Your task to perform on an android device: delete browsing data in the chrome app Image 0: 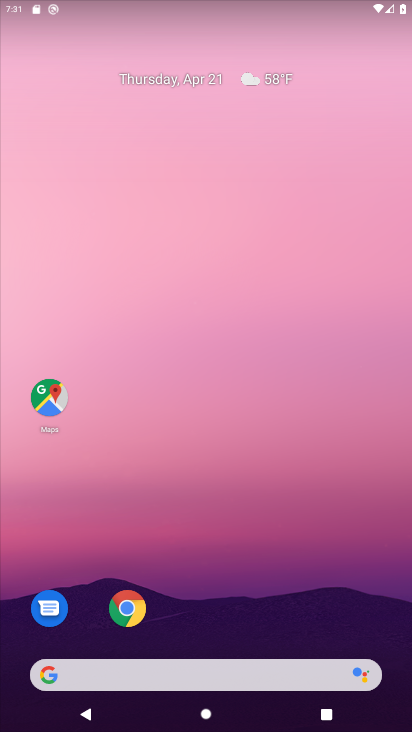
Step 0: click (131, 603)
Your task to perform on an android device: delete browsing data in the chrome app Image 1: 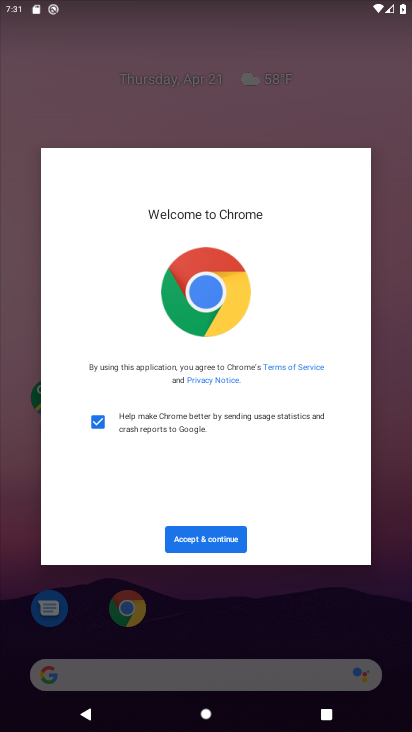
Step 1: click (225, 535)
Your task to perform on an android device: delete browsing data in the chrome app Image 2: 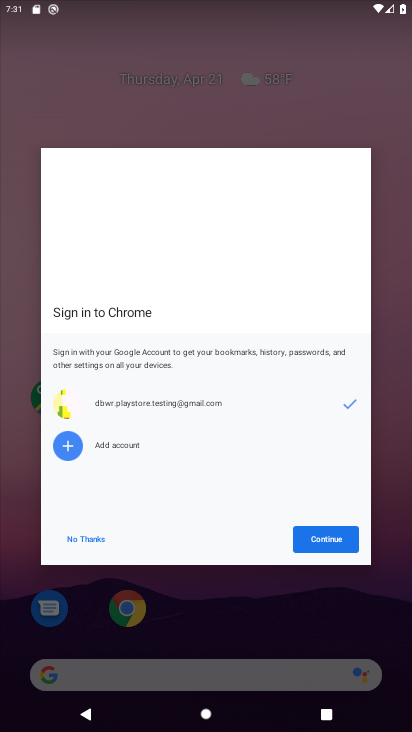
Step 2: click (323, 539)
Your task to perform on an android device: delete browsing data in the chrome app Image 3: 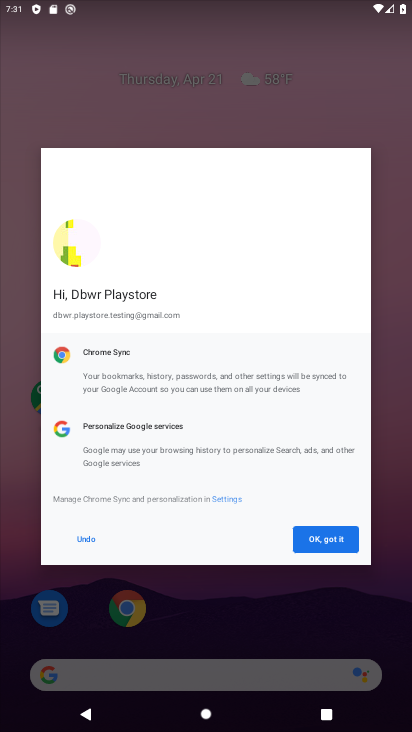
Step 3: click (325, 539)
Your task to perform on an android device: delete browsing data in the chrome app Image 4: 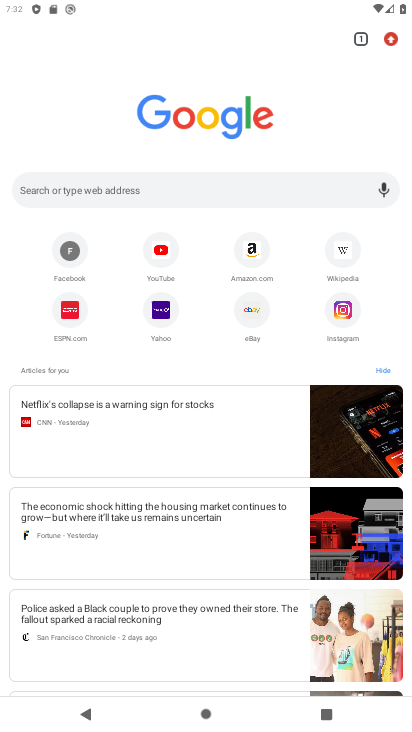
Step 4: click (388, 43)
Your task to perform on an android device: delete browsing data in the chrome app Image 5: 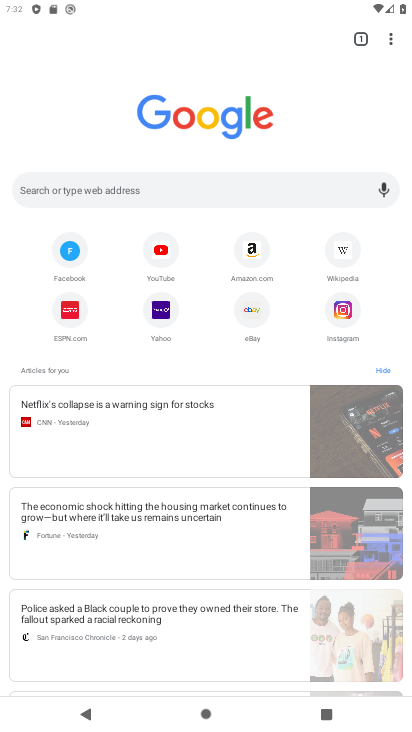
Step 5: click (391, 37)
Your task to perform on an android device: delete browsing data in the chrome app Image 6: 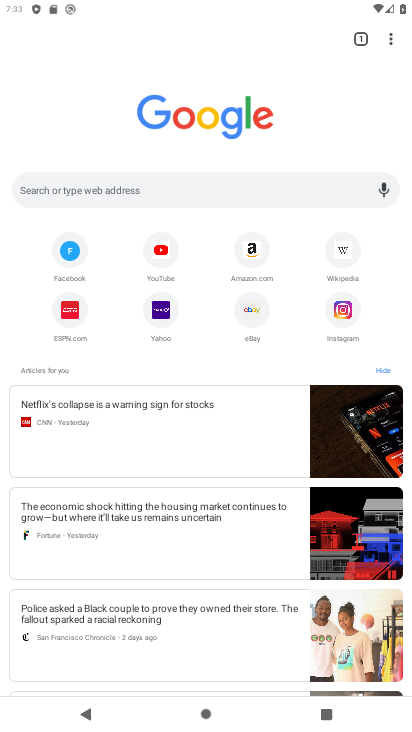
Step 6: drag from (392, 39) to (325, 271)
Your task to perform on an android device: delete browsing data in the chrome app Image 7: 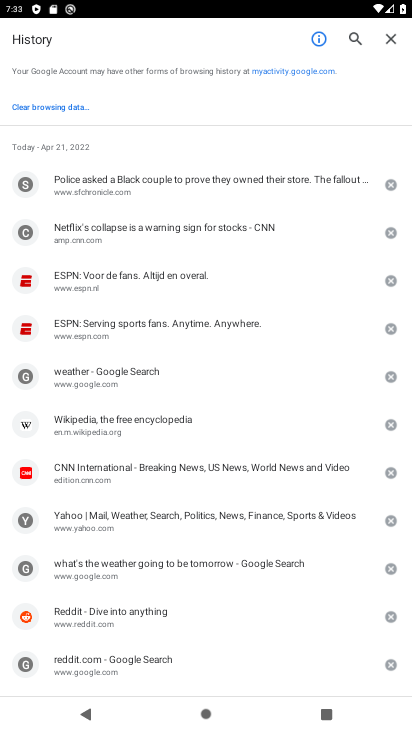
Step 7: click (63, 101)
Your task to perform on an android device: delete browsing data in the chrome app Image 8: 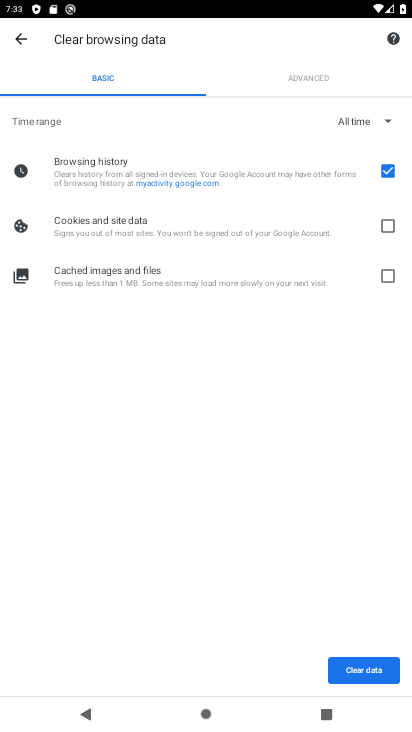
Step 8: click (366, 673)
Your task to perform on an android device: delete browsing data in the chrome app Image 9: 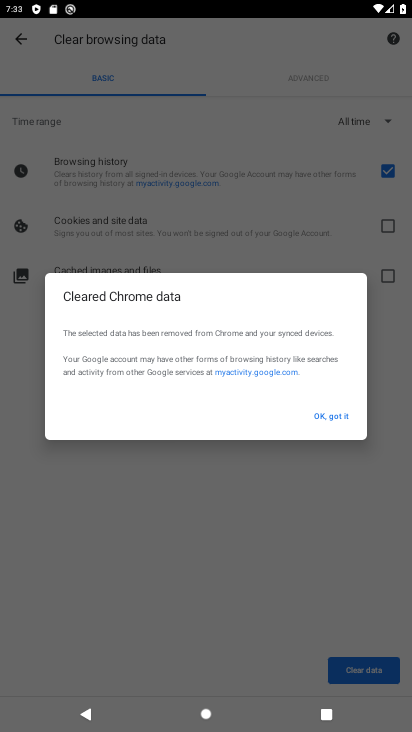
Step 9: click (337, 412)
Your task to perform on an android device: delete browsing data in the chrome app Image 10: 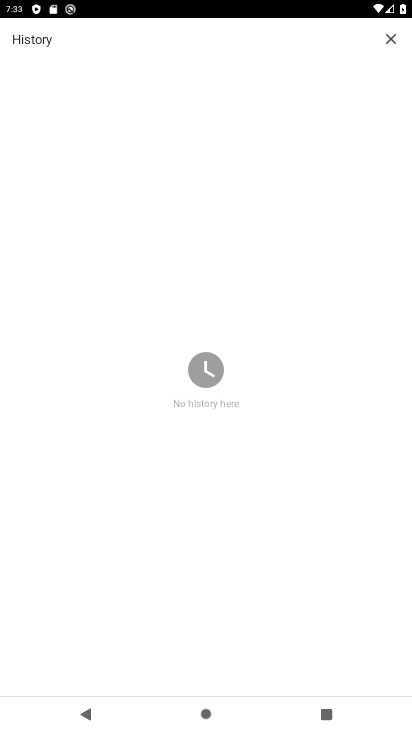
Step 10: task complete